Your task to perform on an android device: Open Google Chrome and click the shortcut for Amazon.com Image 0: 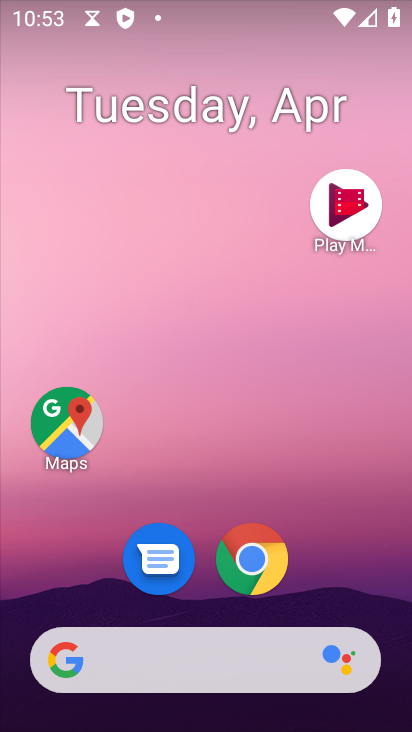
Step 0: drag from (305, 294) to (290, 138)
Your task to perform on an android device: Open Google Chrome and click the shortcut for Amazon.com Image 1: 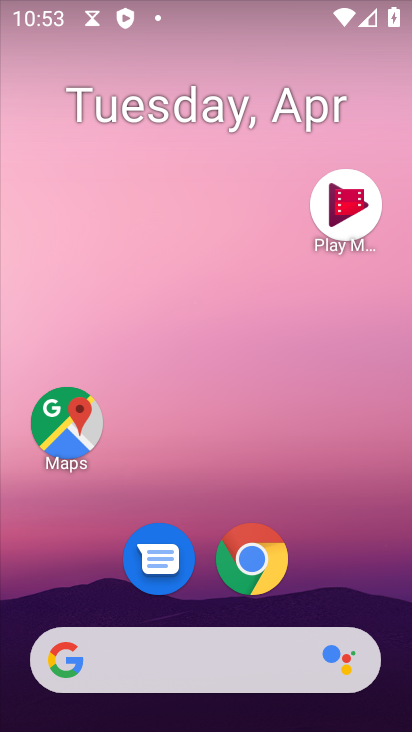
Step 1: drag from (312, 584) to (263, 65)
Your task to perform on an android device: Open Google Chrome and click the shortcut for Amazon.com Image 2: 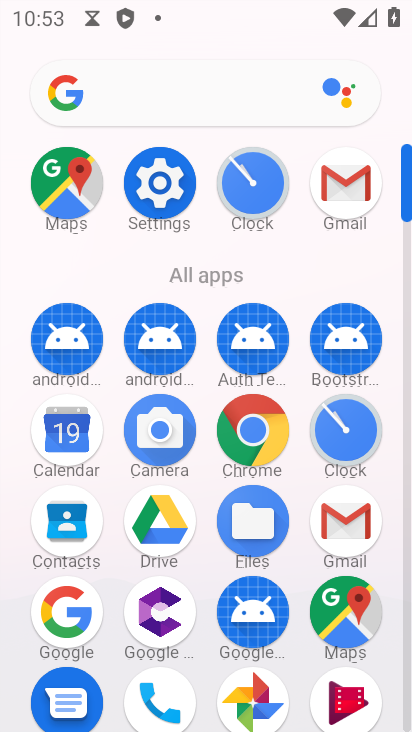
Step 2: click (262, 422)
Your task to perform on an android device: Open Google Chrome and click the shortcut for Amazon.com Image 3: 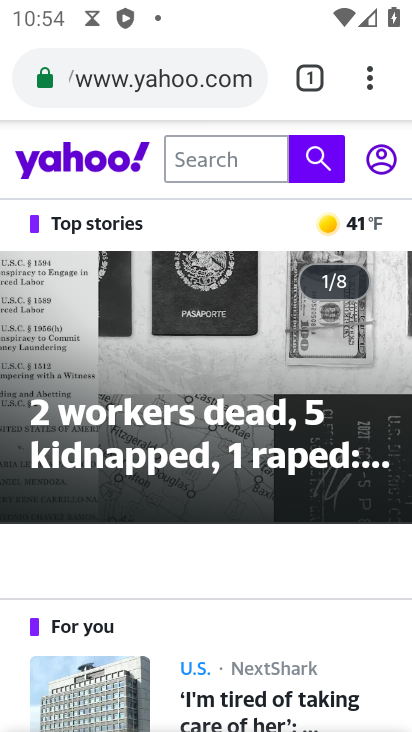
Step 3: click (306, 75)
Your task to perform on an android device: Open Google Chrome and click the shortcut for Amazon.com Image 4: 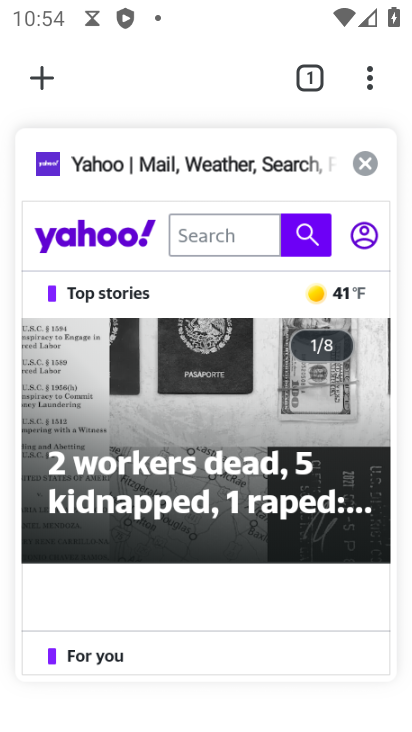
Step 4: click (41, 79)
Your task to perform on an android device: Open Google Chrome and click the shortcut for Amazon.com Image 5: 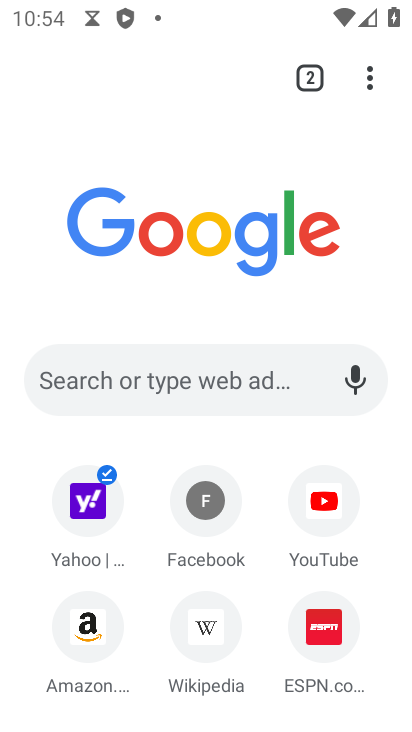
Step 5: click (80, 637)
Your task to perform on an android device: Open Google Chrome and click the shortcut for Amazon.com Image 6: 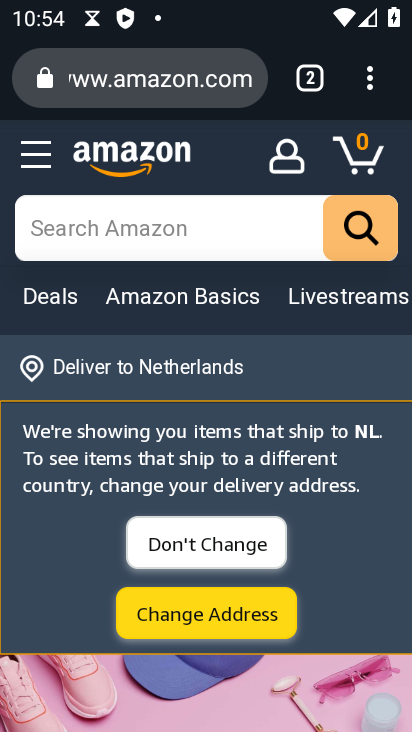
Step 6: task complete